Your task to perform on an android device: change text size in settings app Image 0: 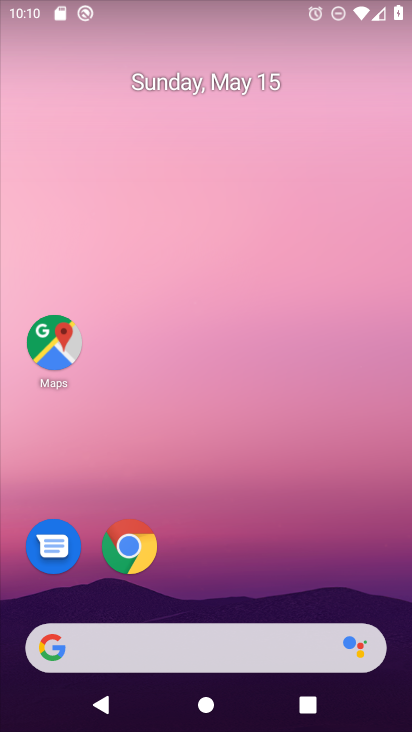
Step 0: drag from (349, 578) to (358, 208)
Your task to perform on an android device: change text size in settings app Image 1: 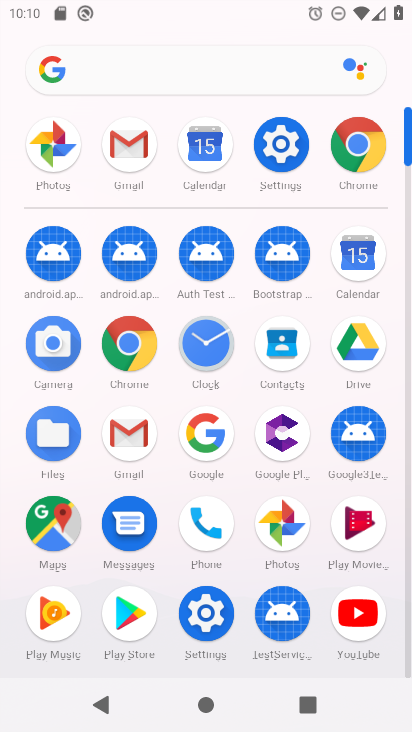
Step 1: click (297, 118)
Your task to perform on an android device: change text size in settings app Image 2: 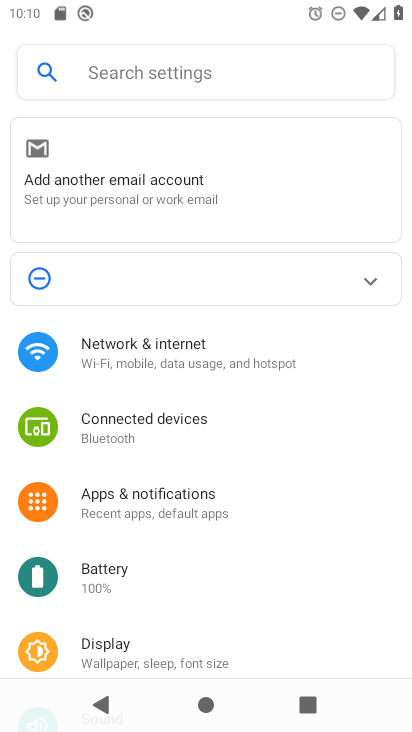
Step 2: click (122, 654)
Your task to perform on an android device: change text size in settings app Image 3: 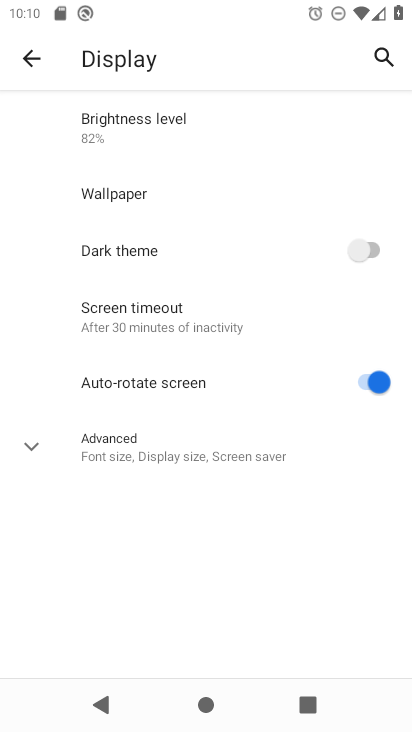
Step 3: click (173, 431)
Your task to perform on an android device: change text size in settings app Image 4: 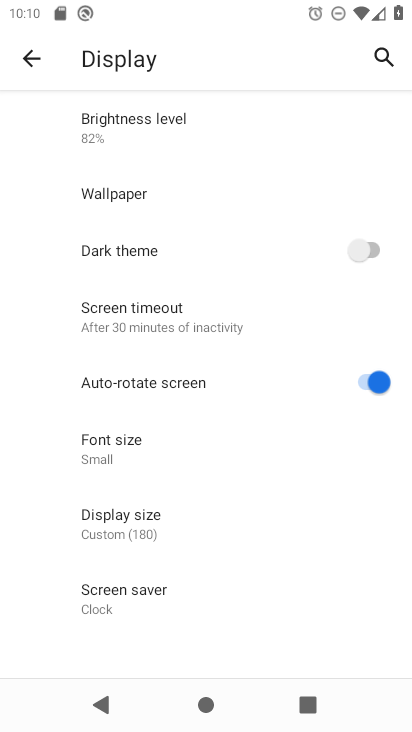
Step 4: click (110, 443)
Your task to perform on an android device: change text size in settings app Image 5: 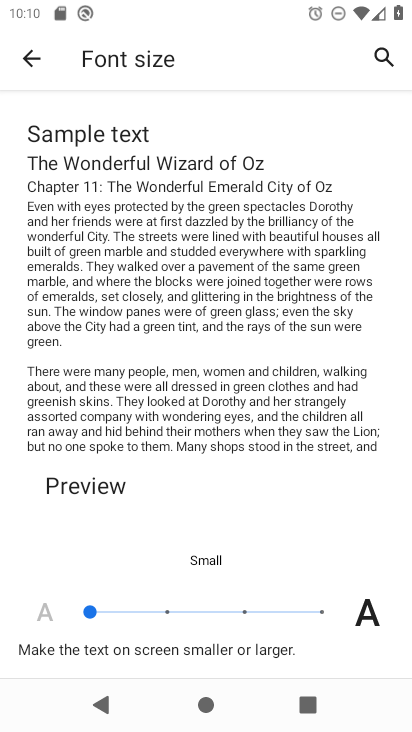
Step 5: click (145, 611)
Your task to perform on an android device: change text size in settings app Image 6: 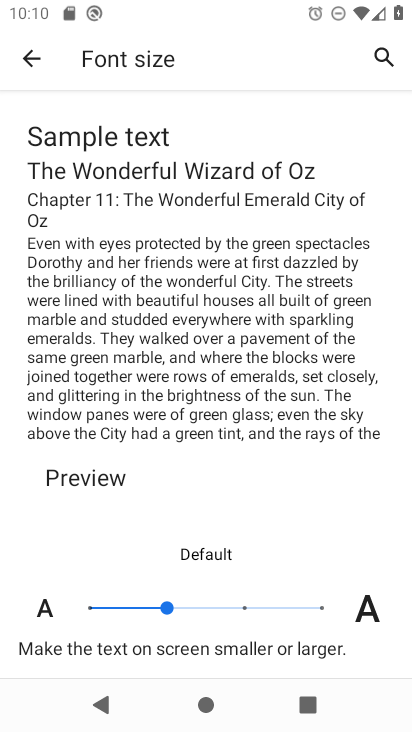
Step 6: task complete